Your task to perform on an android device: turn on translation in the chrome app Image 0: 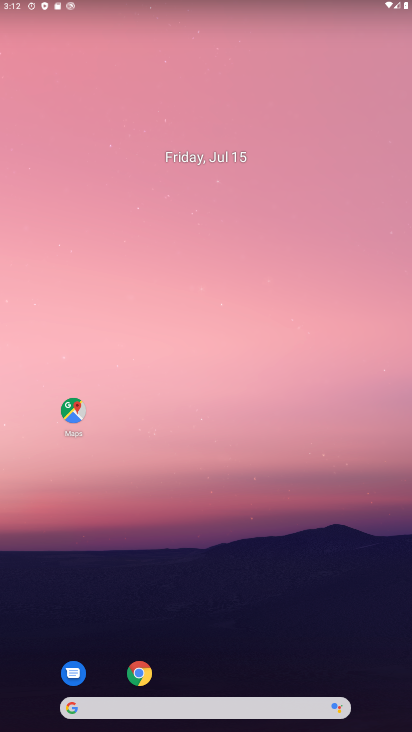
Step 0: click (144, 685)
Your task to perform on an android device: turn on translation in the chrome app Image 1: 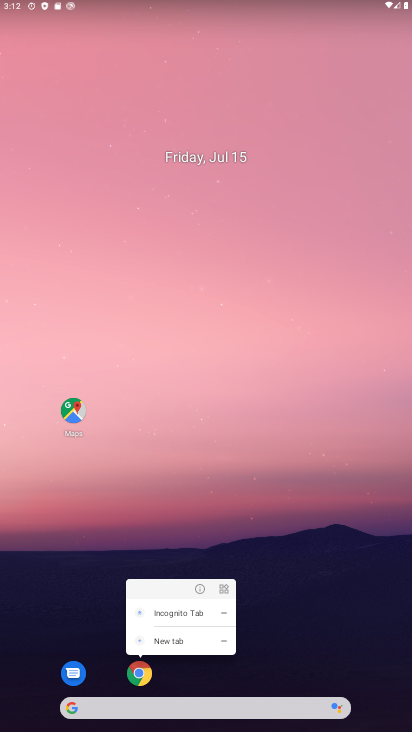
Step 1: click (148, 684)
Your task to perform on an android device: turn on translation in the chrome app Image 2: 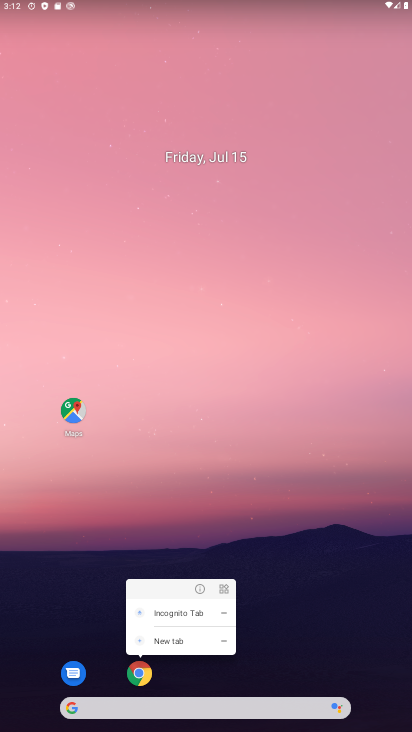
Step 2: click (143, 671)
Your task to perform on an android device: turn on translation in the chrome app Image 3: 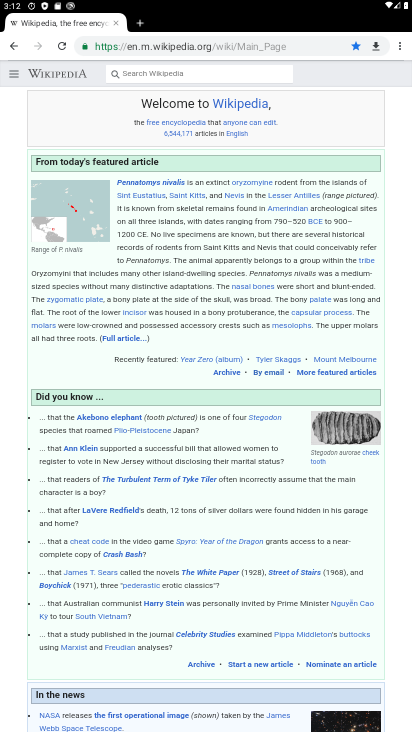
Step 3: drag from (393, 49) to (304, 277)
Your task to perform on an android device: turn on translation in the chrome app Image 4: 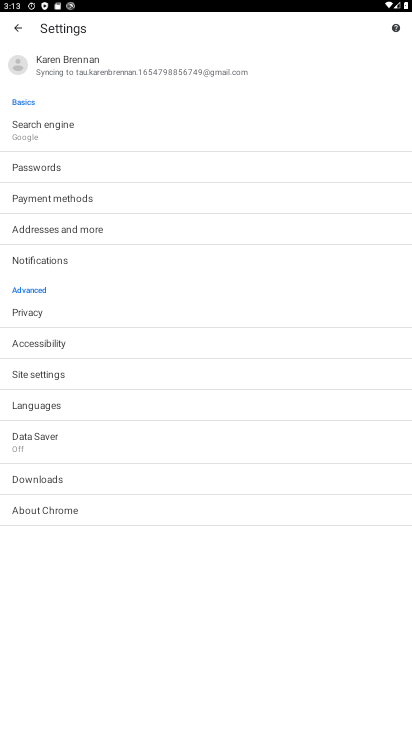
Step 4: click (64, 405)
Your task to perform on an android device: turn on translation in the chrome app Image 5: 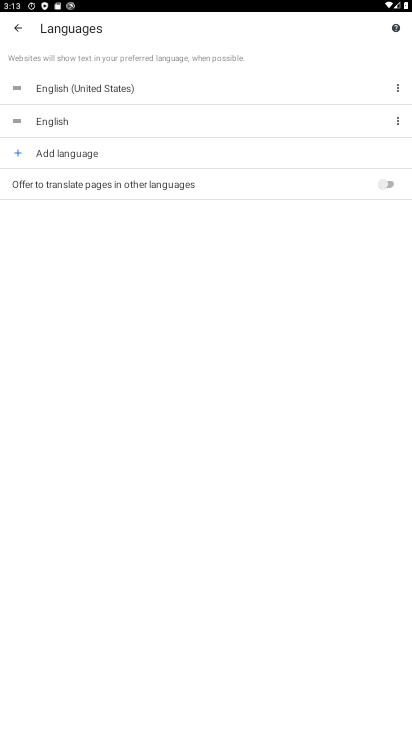
Step 5: click (398, 180)
Your task to perform on an android device: turn on translation in the chrome app Image 6: 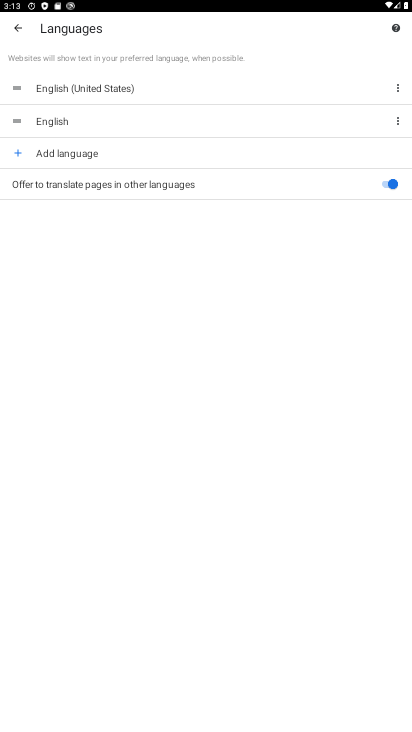
Step 6: task complete